Your task to perform on an android device: Go to display settings Image 0: 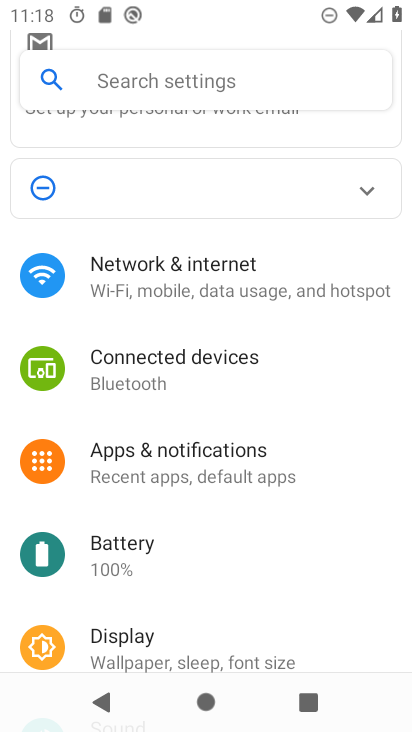
Step 0: drag from (157, 537) to (184, 336)
Your task to perform on an android device: Go to display settings Image 1: 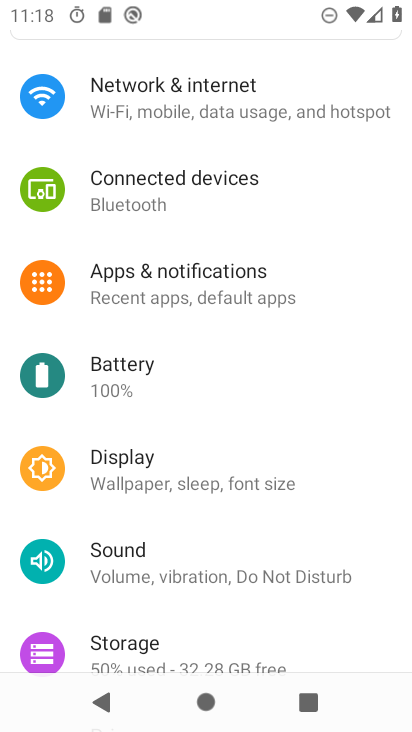
Step 1: click (145, 448)
Your task to perform on an android device: Go to display settings Image 2: 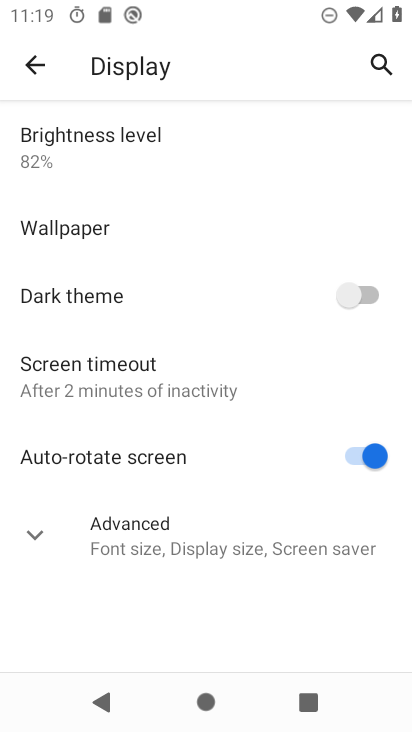
Step 2: task complete